Your task to perform on an android device: turn on javascript in the chrome app Image 0: 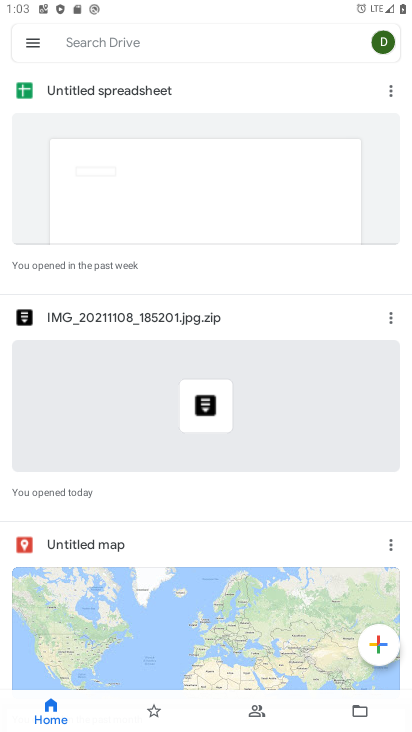
Step 0: press home button
Your task to perform on an android device: turn on javascript in the chrome app Image 1: 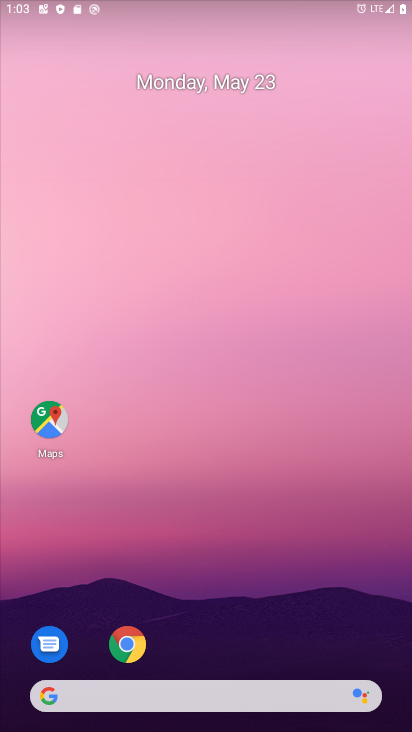
Step 1: drag from (346, 613) to (263, 89)
Your task to perform on an android device: turn on javascript in the chrome app Image 2: 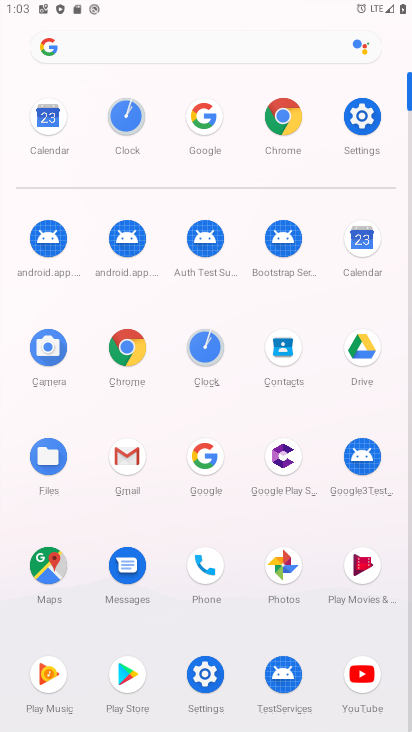
Step 2: click (270, 93)
Your task to perform on an android device: turn on javascript in the chrome app Image 3: 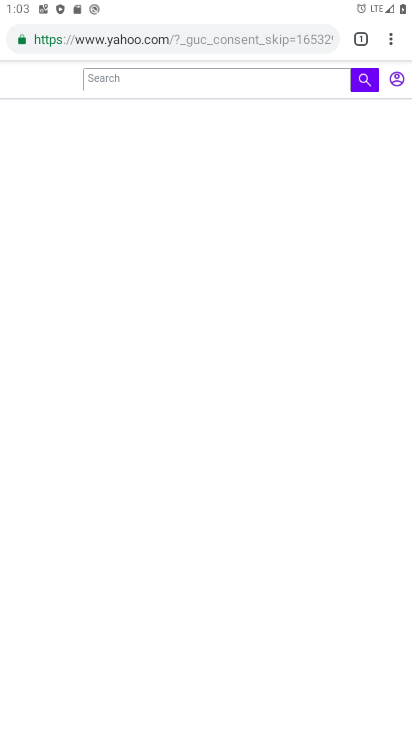
Step 3: press back button
Your task to perform on an android device: turn on javascript in the chrome app Image 4: 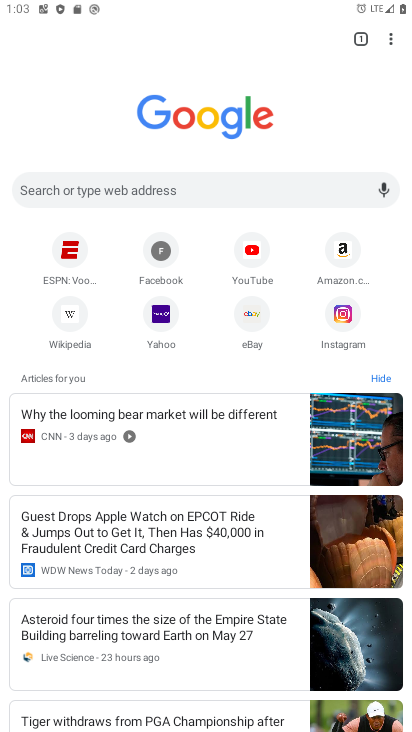
Step 4: click (388, 35)
Your task to perform on an android device: turn on javascript in the chrome app Image 5: 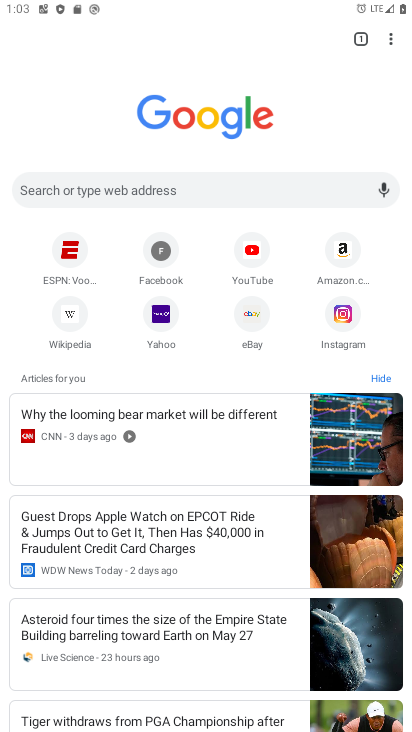
Step 5: click (388, 35)
Your task to perform on an android device: turn on javascript in the chrome app Image 6: 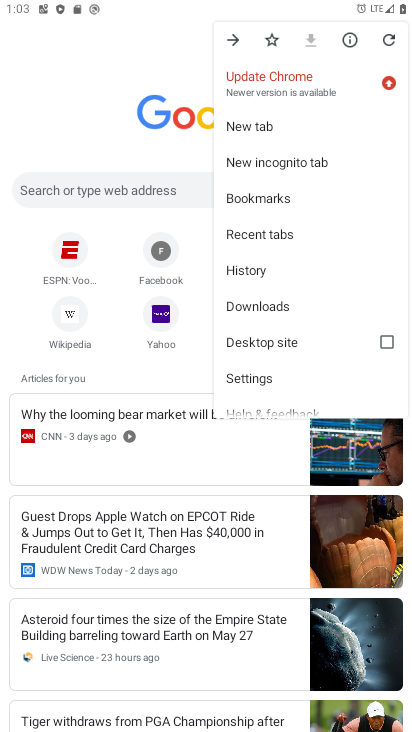
Step 6: click (266, 369)
Your task to perform on an android device: turn on javascript in the chrome app Image 7: 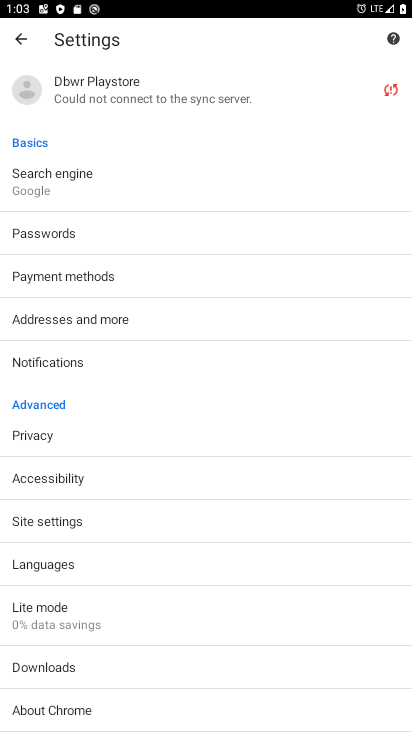
Step 7: click (129, 529)
Your task to perform on an android device: turn on javascript in the chrome app Image 8: 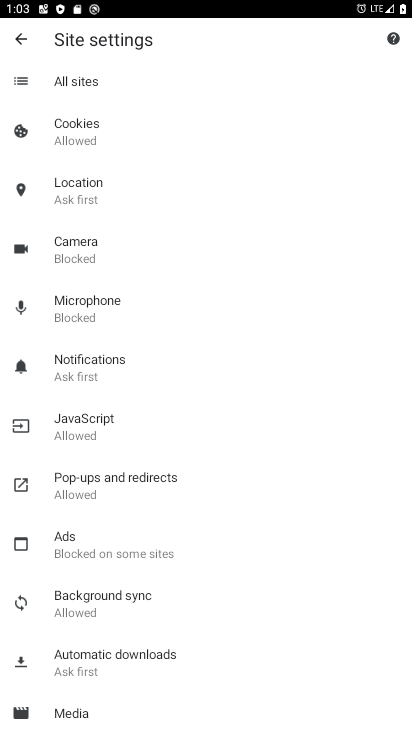
Step 8: click (124, 414)
Your task to perform on an android device: turn on javascript in the chrome app Image 9: 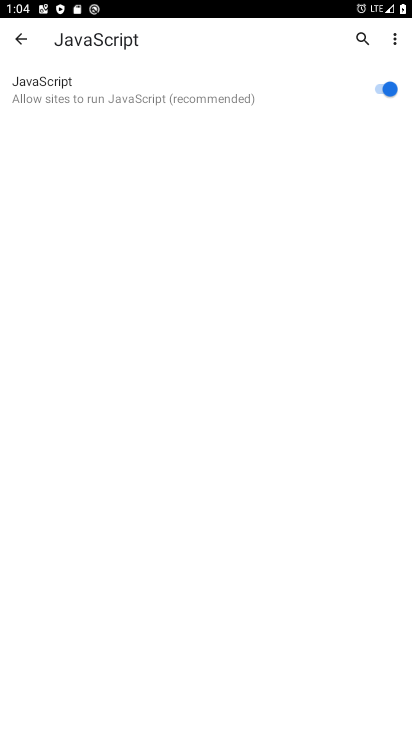
Step 9: task complete